Your task to perform on an android device: toggle sleep mode Image 0: 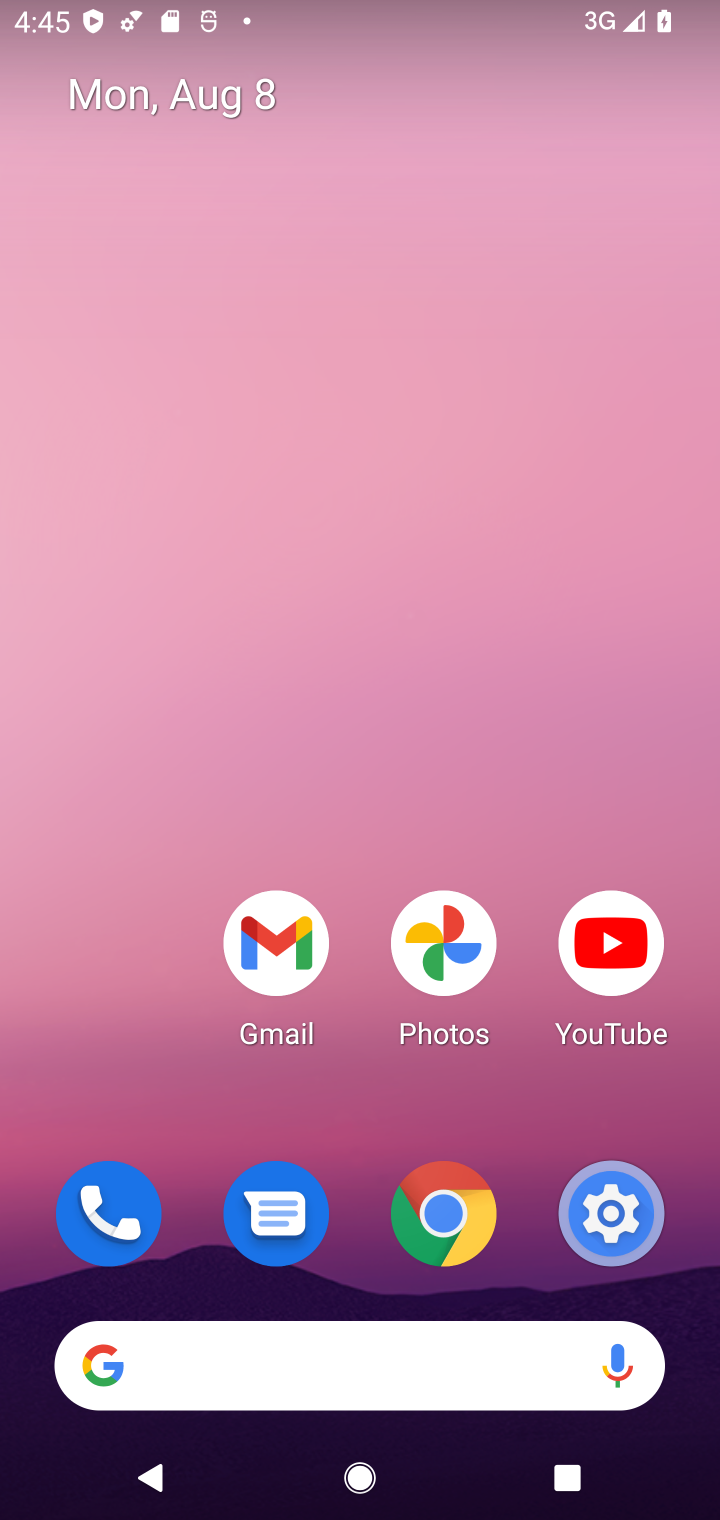
Step 0: click (617, 1199)
Your task to perform on an android device: toggle sleep mode Image 1: 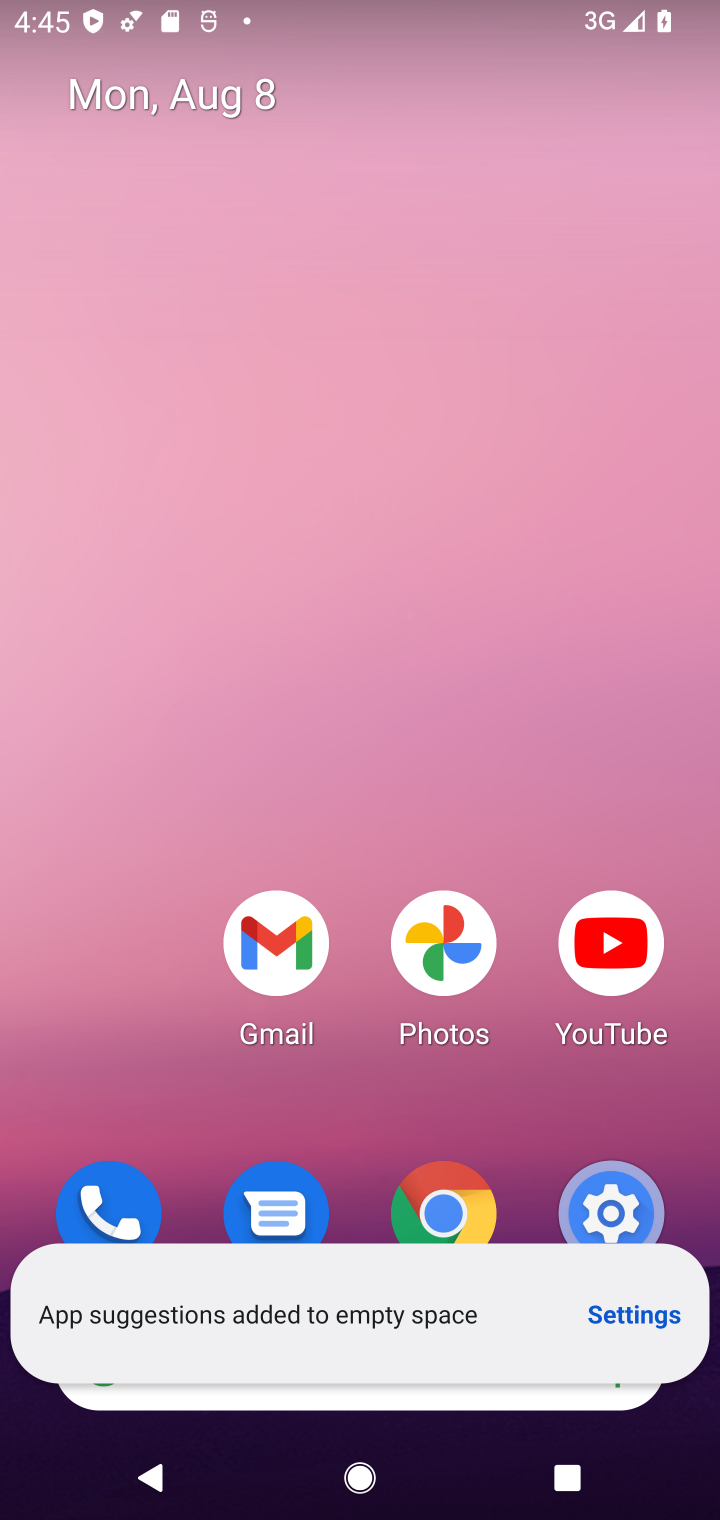
Step 1: click (617, 1199)
Your task to perform on an android device: toggle sleep mode Image 2: 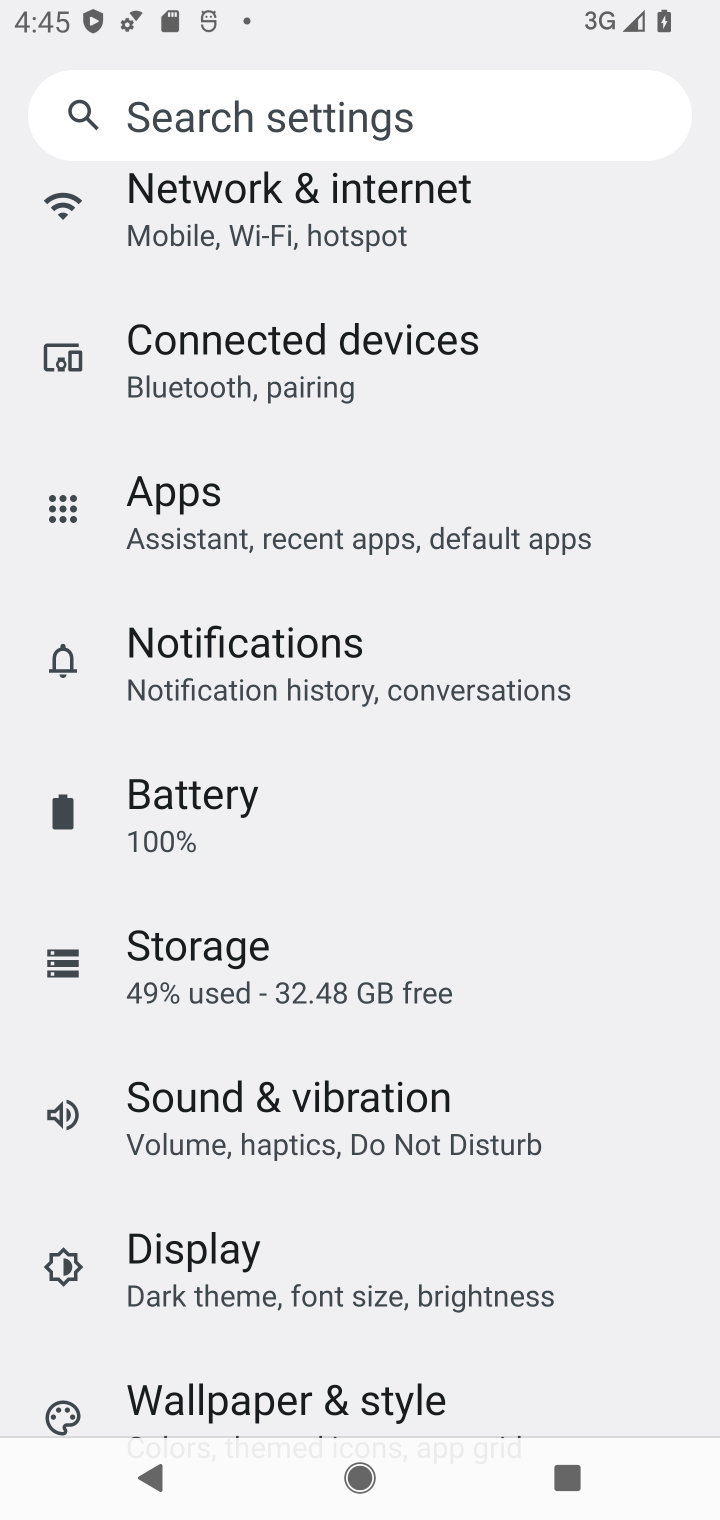
Step 2: click (282, 1271)
Your task to perform on an android device: toggle sleep mode Image 3: 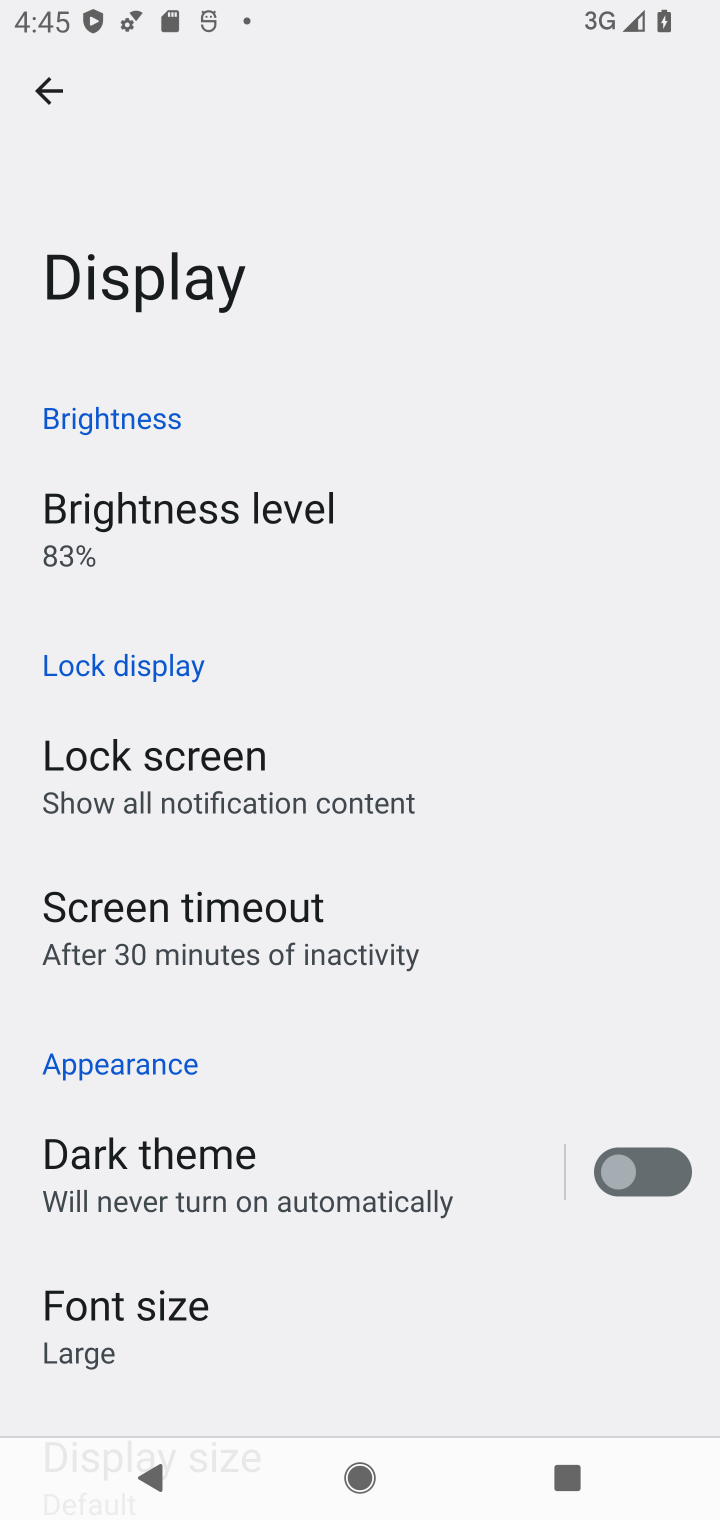
Step 3: click (123, 350)
Your task to perform on an android device: toggle sleep mode Image 4: 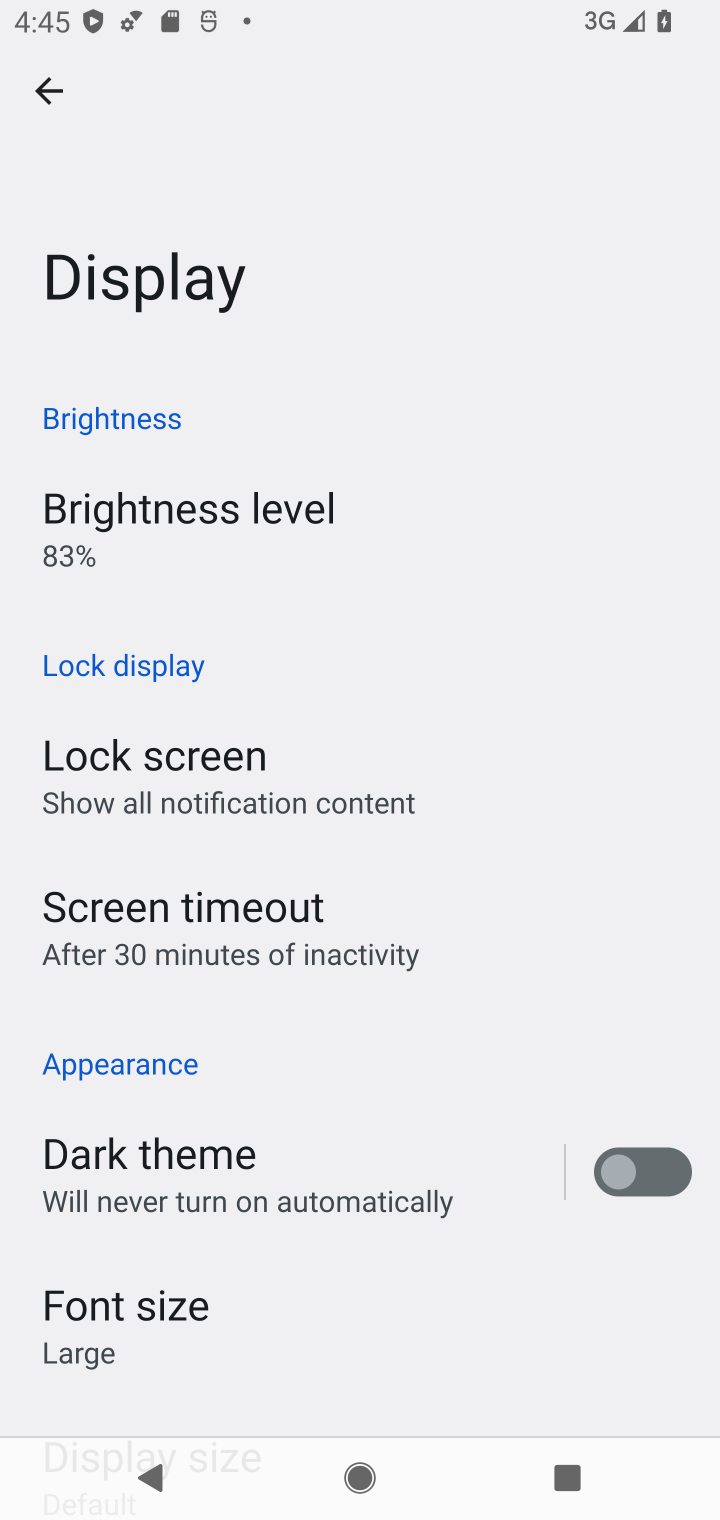
Step 4: task complete